Your task to perform on an android device: Toggle the flashlight Image 0: 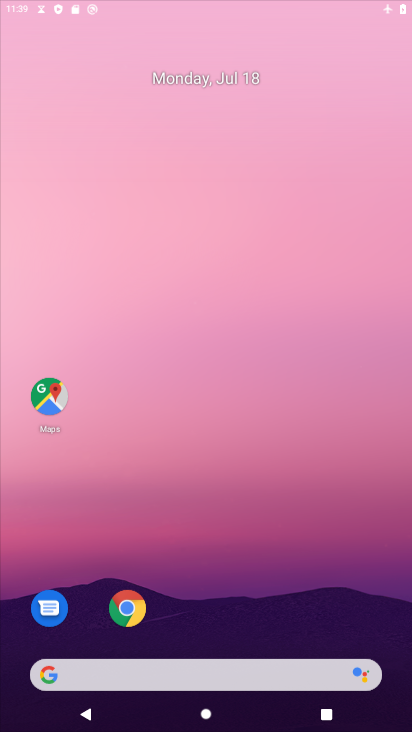
Step 0: drag from (226, 251) to (192, 88)
Your task to perform on an android device: Toggle the flashlight Image 1: 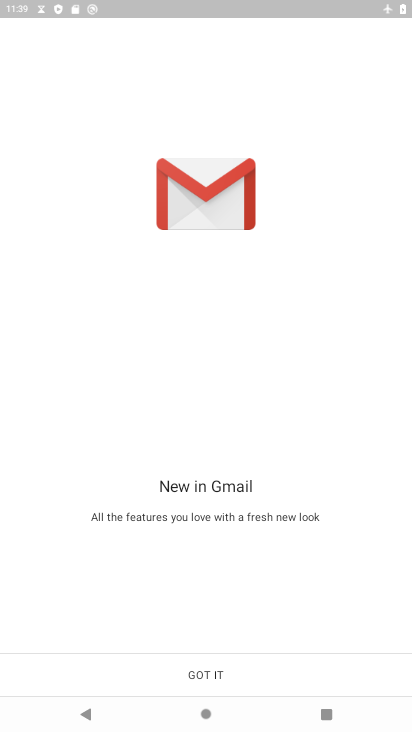
Step 1: press home button
Your task to perform on an android device: Toggle the flashlight Image 2: 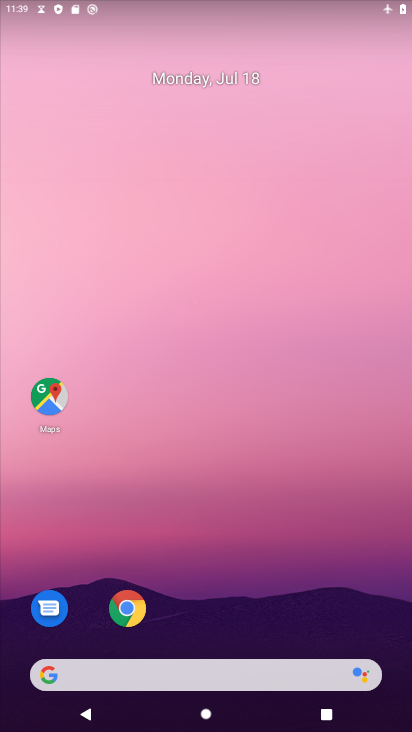
Step 2: drag from (184, 65) to (271, 628)
Your task to perform on an android device: Toggle the flashlight Image 3: 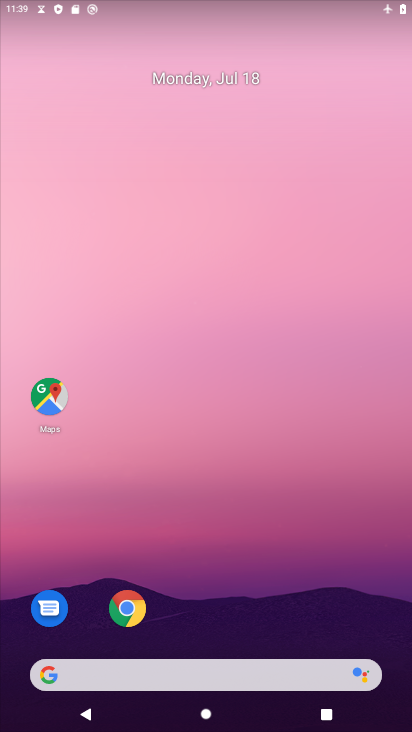
Step 3: click (149, 379)
Your task to perform on an android device: Toggle the flashlight Image 4: 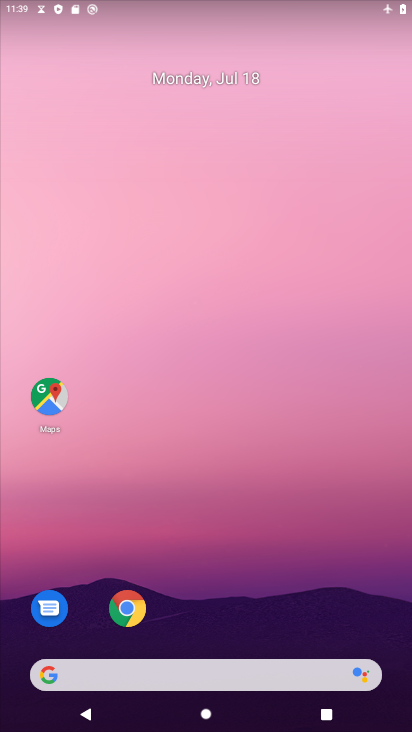
Step 4: task complete